Your task to perform on an android device: open app "Airtel Thanks" Image 0: 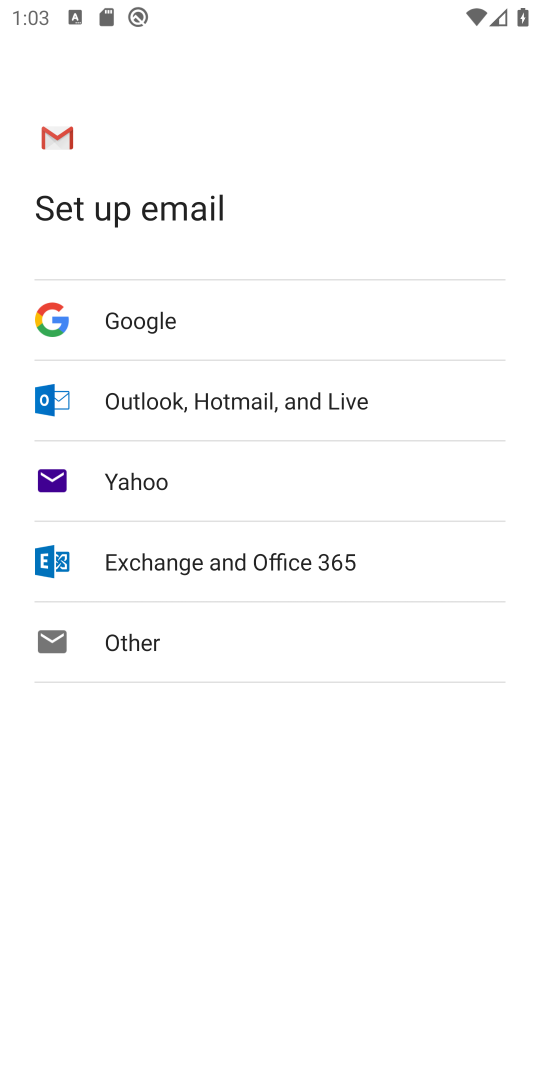
Step 0: press home button
Your task to perform on an android device: open app "Airtel Thanks" Image 1: 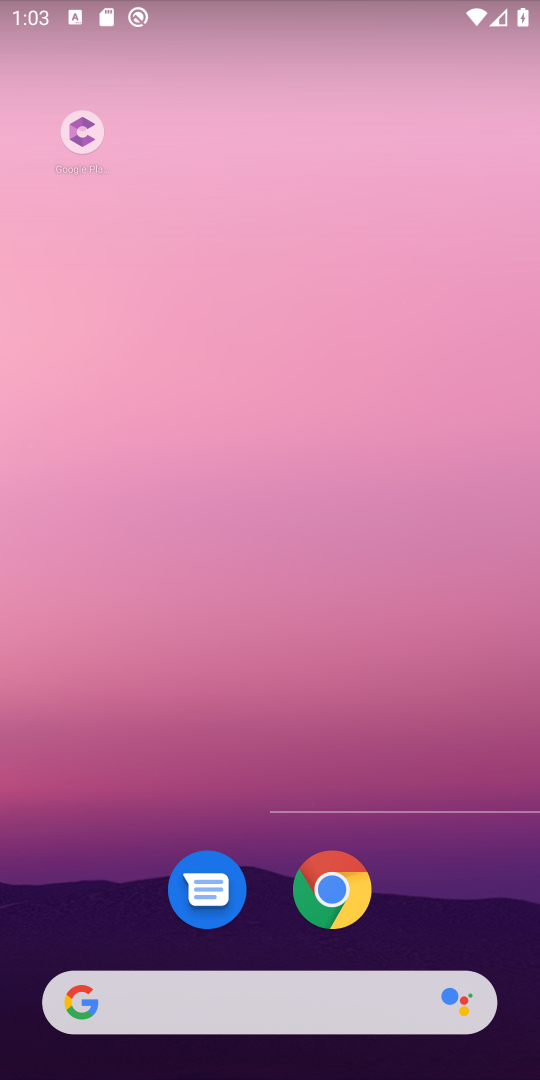
Step 1: click (426, 695)
Your task to perform on an android device: open app "Airtel Thanks" Image 2: 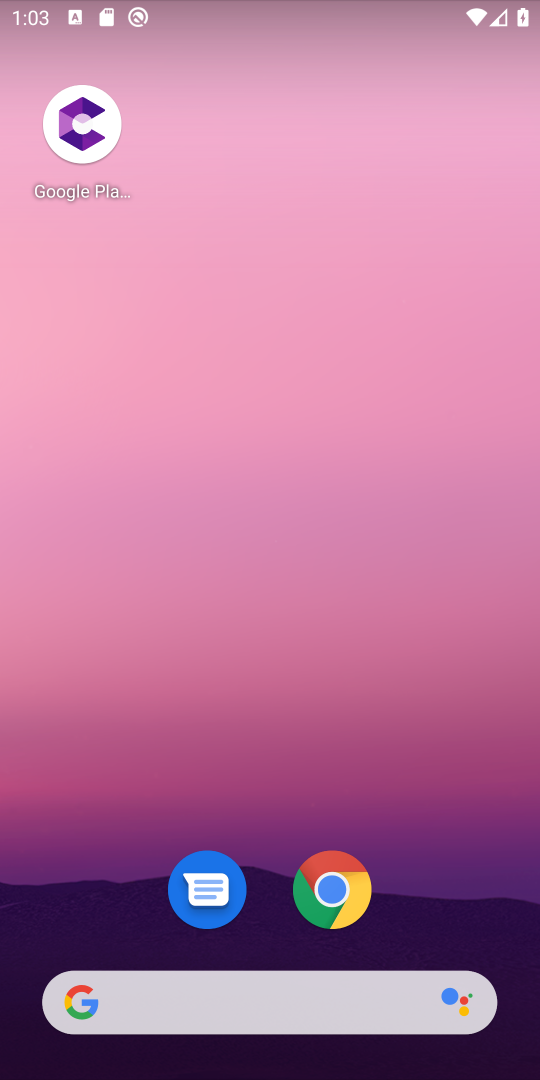
Step 2: drag from (286, 822) to (296, 143)
Your task to perform on an android device: open app "Airtel Thanks" Image 3: 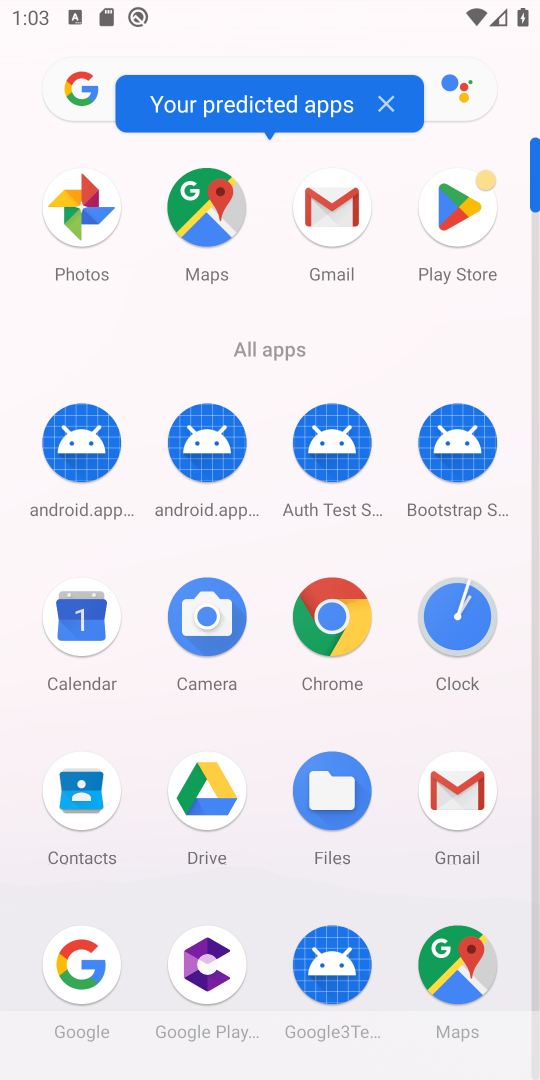
Step 3: click (432, 207)
Your task to perform on an android device: open app "Airtel Thanks" Image 4: 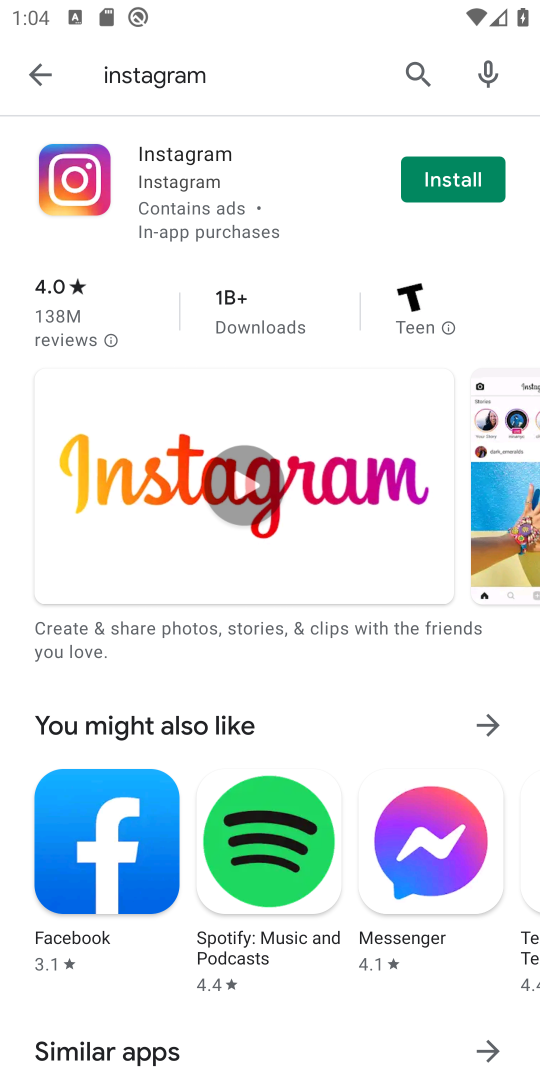
Step 4: click (424, 81)
Your task to perform on an android device: open app "Airtel Thanks" Image 5: 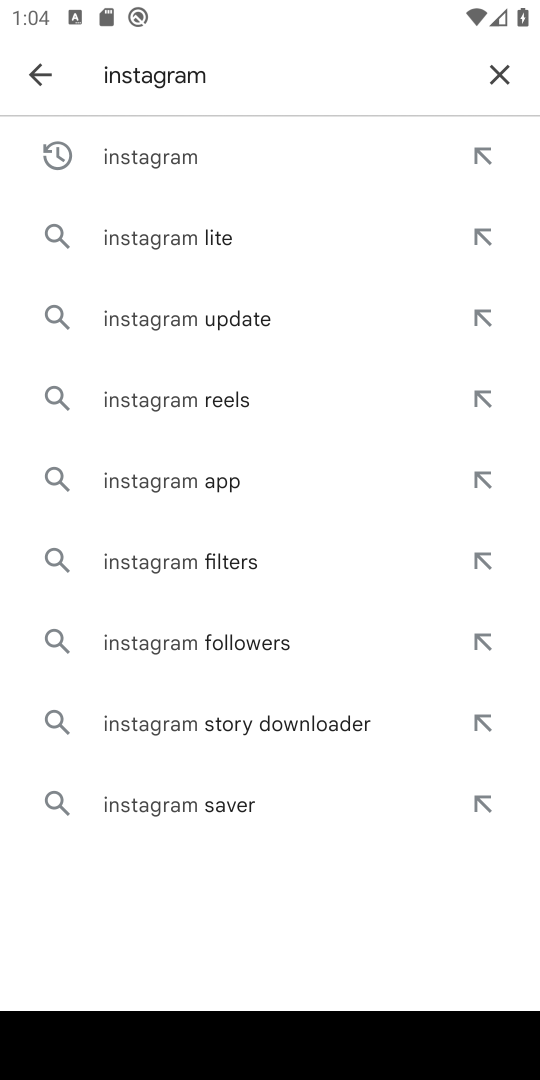
Step 5: click (501, 68)
Your task to perform on an android device: open app "Airtel Thanks" Image 6: 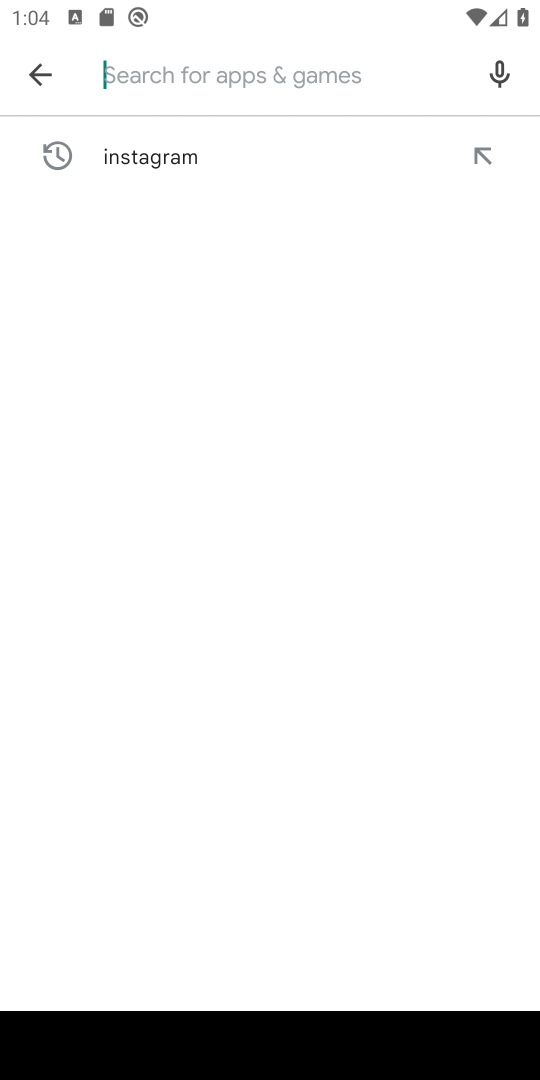
Step 6: click (229, 103)
Your task to perform on an android device: open app "Airtel Thanks" Image 7: 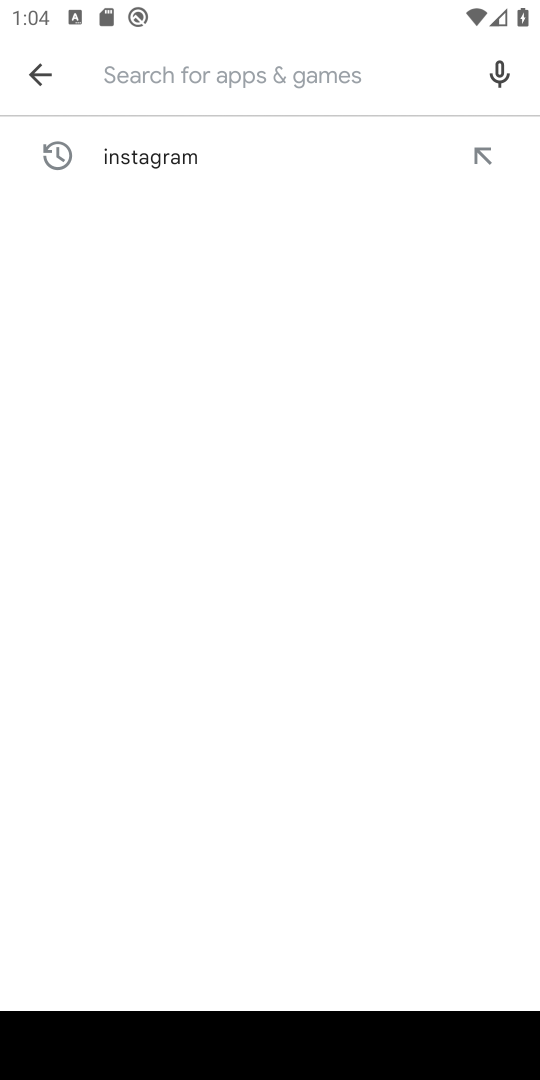
Step 7: type "Airtel Thanks"
Your task to perform on an android device: open app "Airtel Thanks" Image 8: 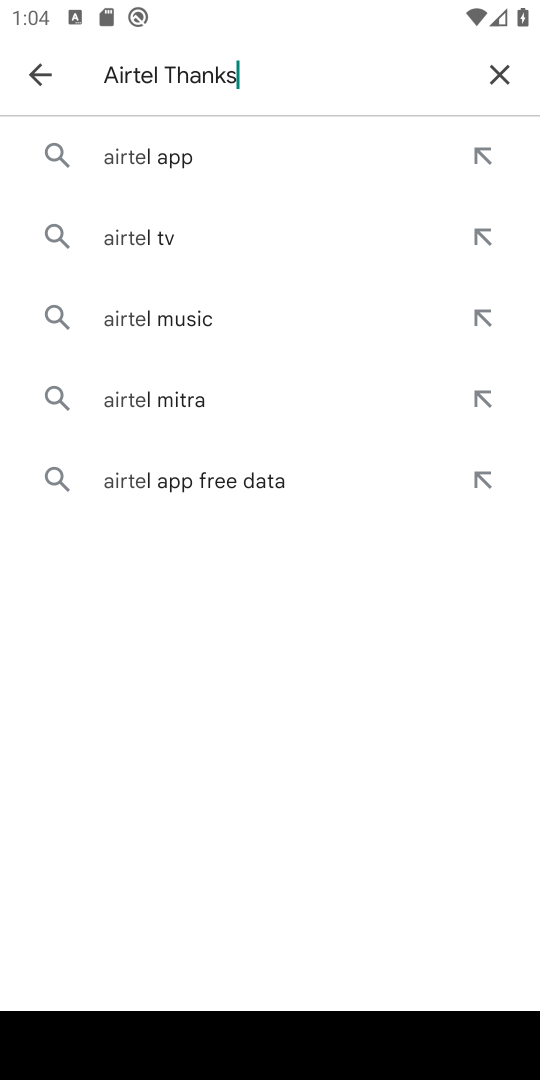
Step 8: type ""
Your task to perform on an android device: open app "Airtel Thanks" Image 9: 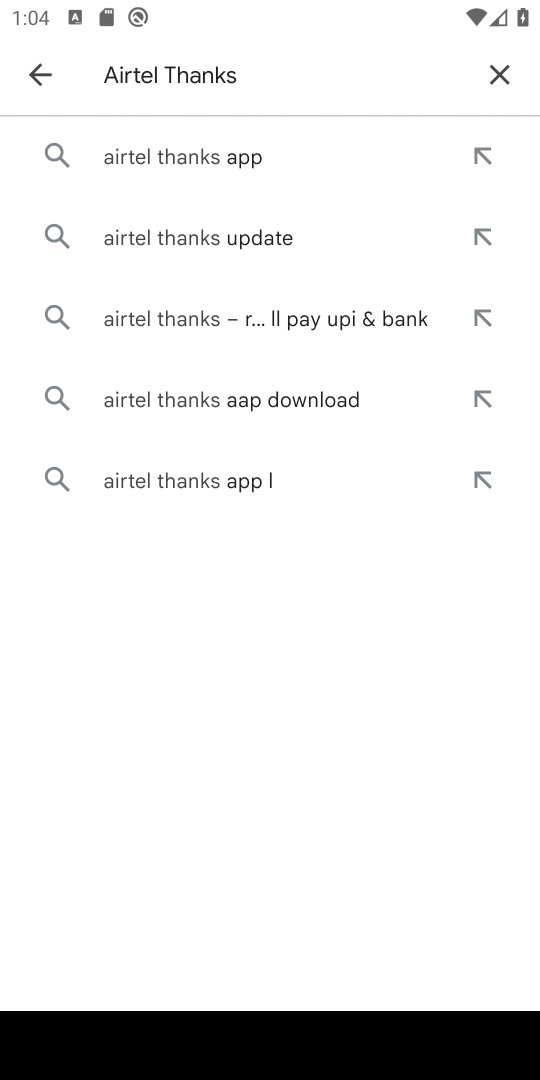
Step 9: click (195, 171)
Your task to perform on an android device: open app "Airtel Thanks" Image 10: 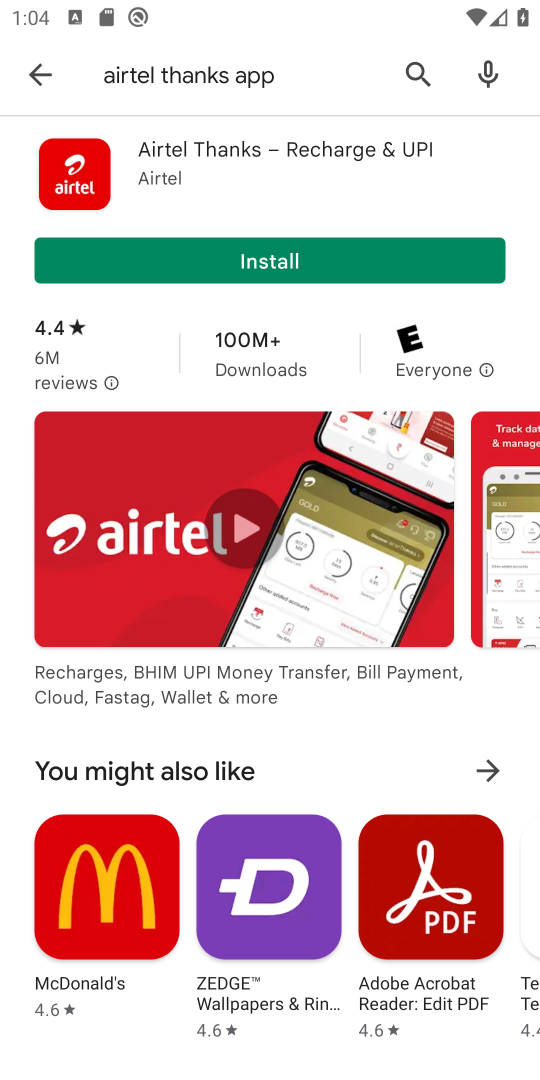
Step 10: task complete